Your task to perform on an android device: Do I have any events tomorrow? Image 0: 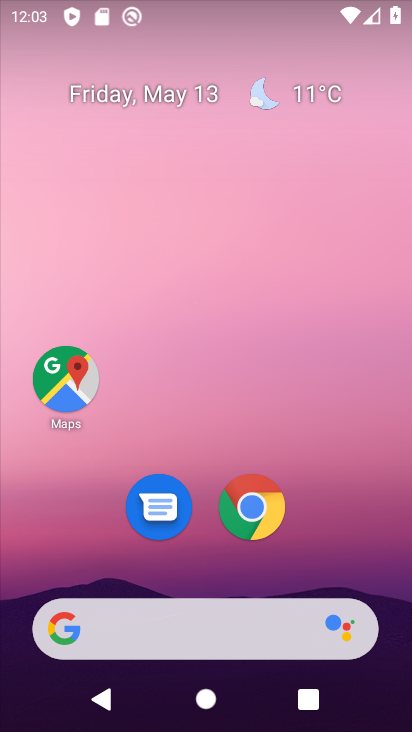
Step 0: drag from (222, 577) to (174, 720)
Your task to perform on an android device: Do I have any events tomorrow? Image 1: 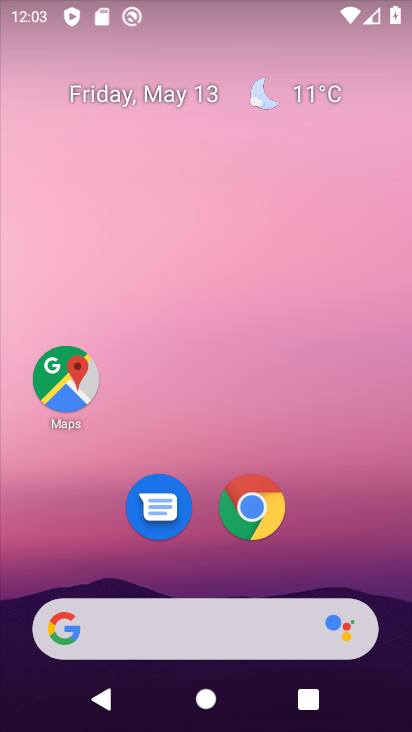
Step 1: drag from (238, 626) to (127, 0)
Your task to perform on an android device: Do I have any events tomorrow? Image 2: 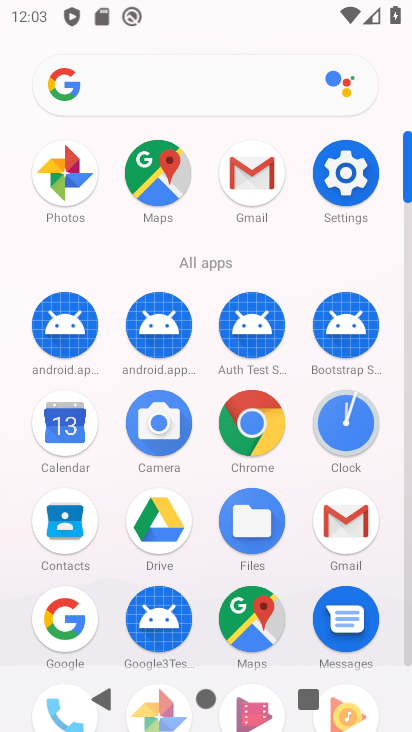
Step 2: click (69, 411)
Your task to perform on an android device: Do I have any events tomorrow? Image 3: 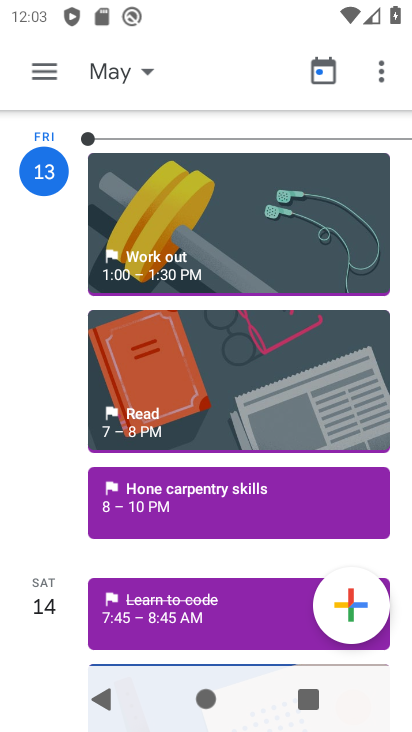
Step 3: click (44, 594)
Your task to perform on an android device: Do I have any events tomorrow? Image 4: 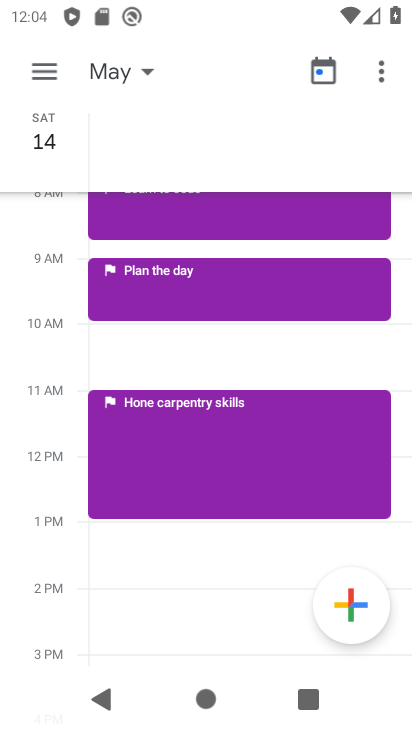
Step 4: task complete